Your task to perform on an android device: toggle location history Image 0: 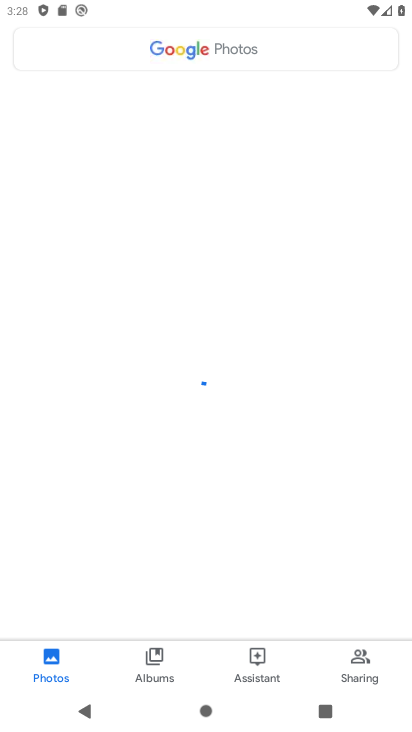
Step 0: press home button
Your task to perform on an android device: toggle location history Image 1: 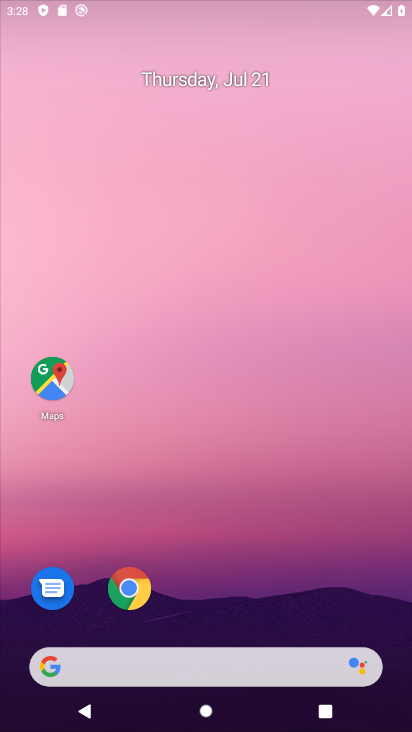
Step 1: press home button
Your task to perform on an android device: toggle location history Image 2: 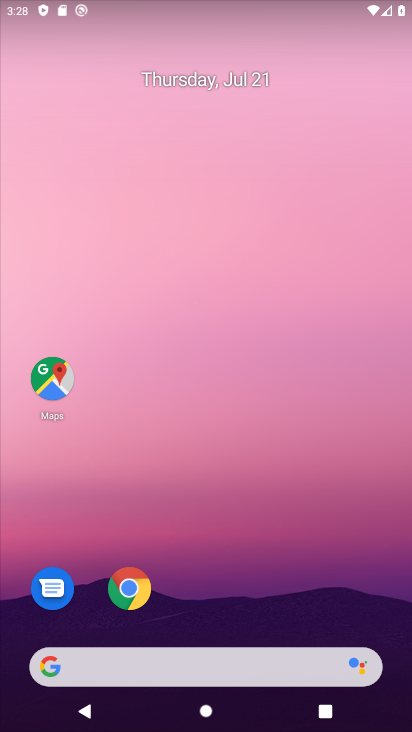
Step 2: drag from (243, 645) to (244, 286)
Your task to perform on an android device: toggle location history Image 3: 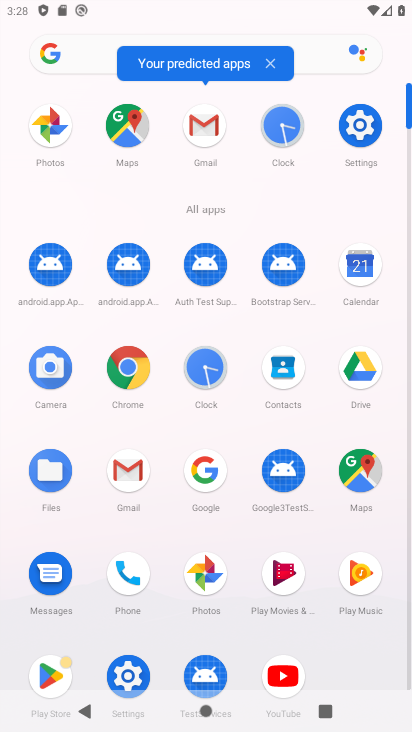
Step 3: click (360, 132)
Your task to perform on an android device: toggle location history Image 4: 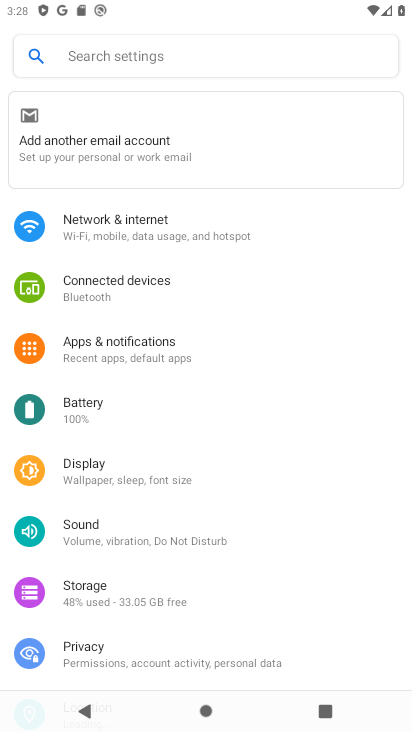
Step 4: drag from (98, 622) to (100, 314)
Your task to perform on an android device: toggle location history Image 5: 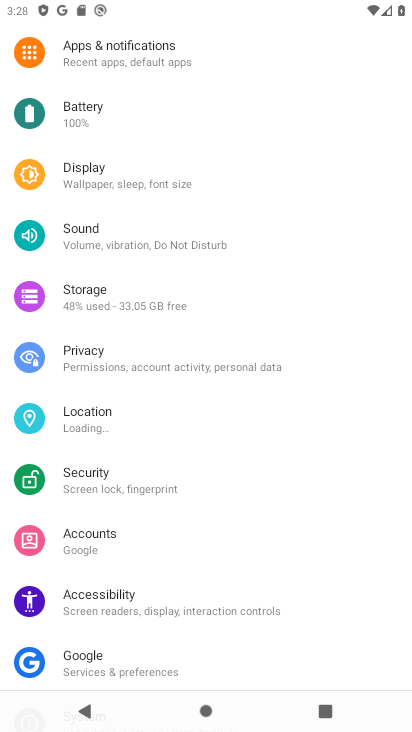
Step 5: click (84, 419)
Your task to perform on an android device: toggle location history Image 6: 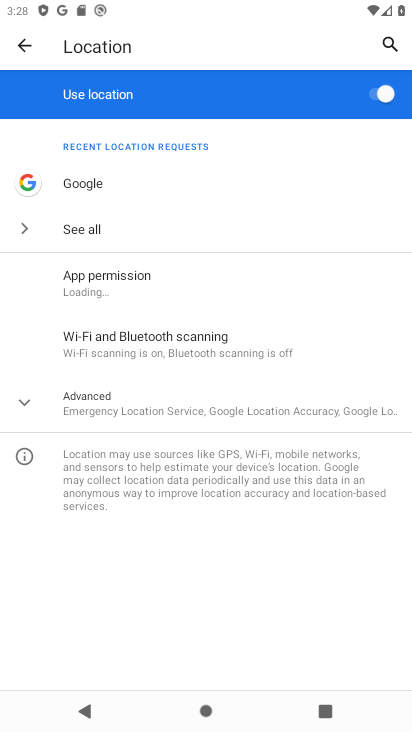
Step 6: click (133, 412)
Your task to perform on an android device: toggle location history Image 7: 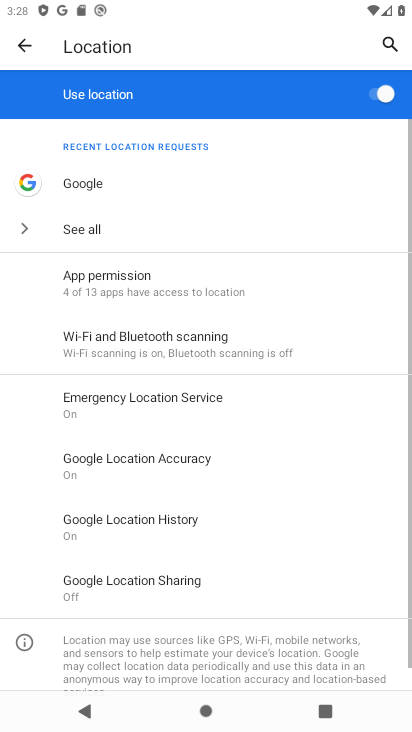
Step 7: click (161, 518)
Your task to perform on an android device: toggle location history Image 8: 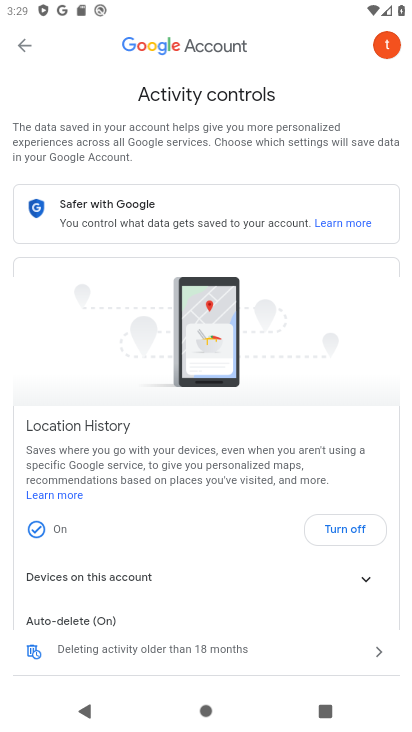
Step 8: click (346, 530)
Your task to perform on an android device: toggle location history Image 9: 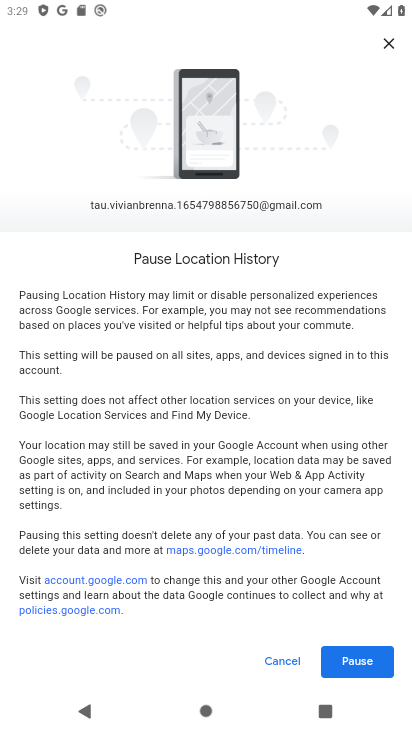
Step 9: click (368, 666)
Your task to perform on an android device: toggle location history Image 10: 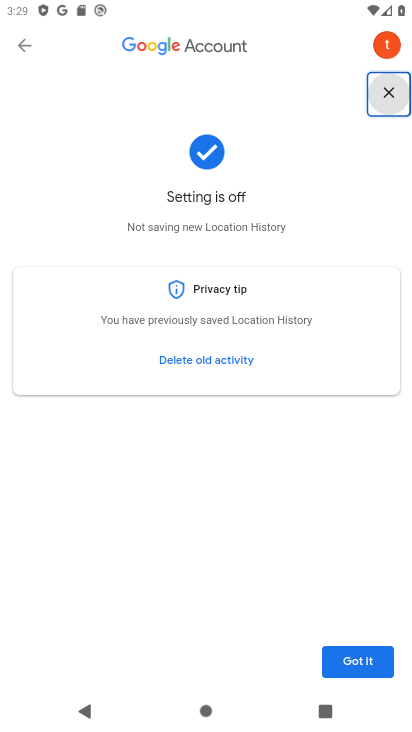
Step 10: click (368, 666)
Your task to perform on an android device: toggle location history Image 11: 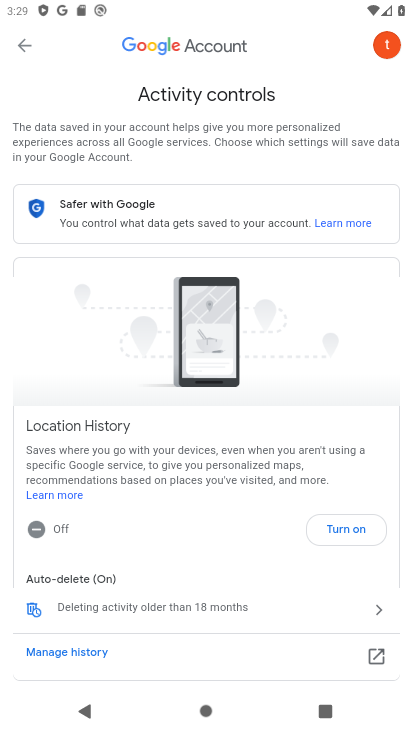
Step 11: task complete